Your task to perform on an android device: open a bookmark in the chrome app Image 0: 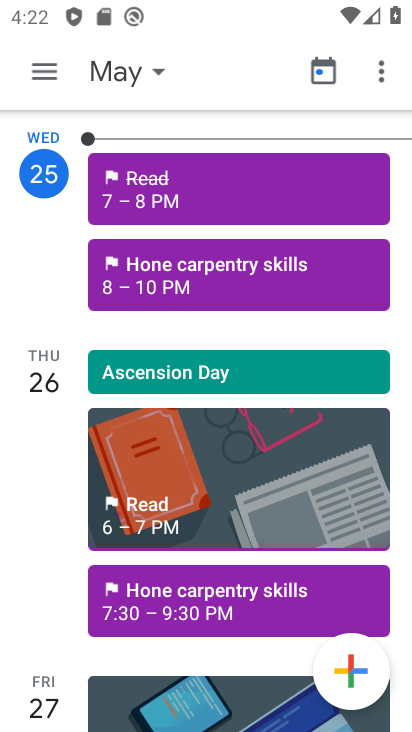
Step 0: press back button
Your task to perform on an android device: open a bookmark in the chrome app Image 1: 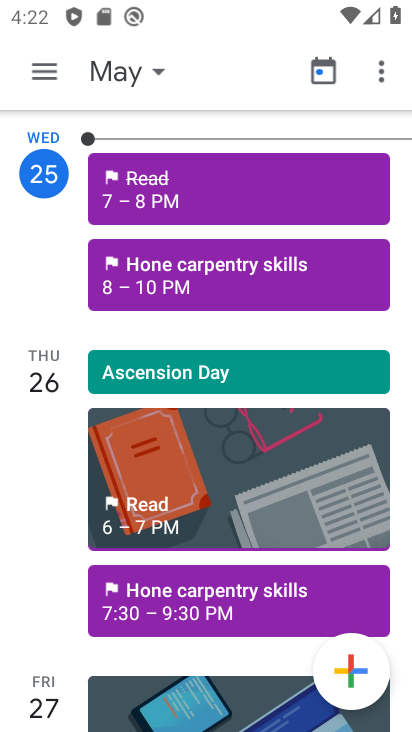
Step 1: press back button
Your task to perform on an android device: open a bookmark in the chrome app Image 2: 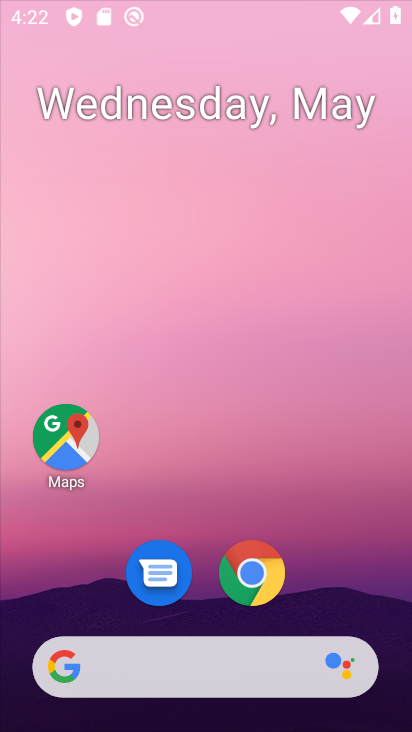
Step 2: press back button
Your task to perform on an android device: open a bookmark in the chrome app Image 3: 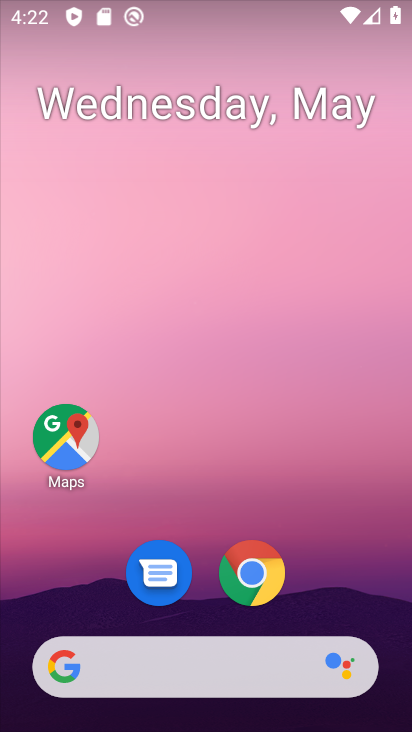
Step 3: drag from (241, 606) to (99, 11)
Your task to perform on an android device: open a bookmark in the chrome app Image 4: 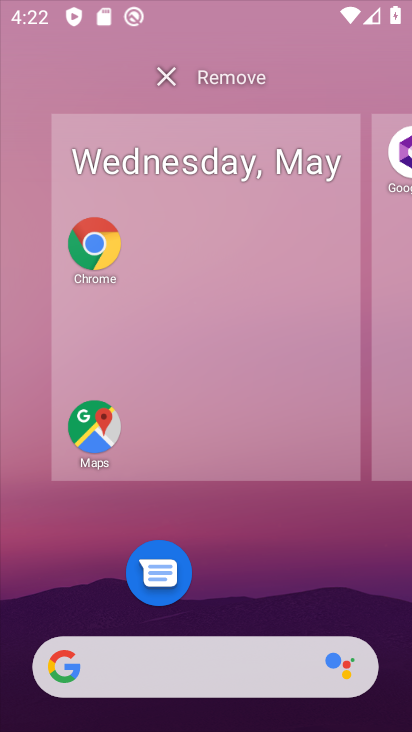
Step 4: drag from (85, 38) to (49, 4)
Your task to perform on an android device: open a bookmark in the chrome app Image 5: 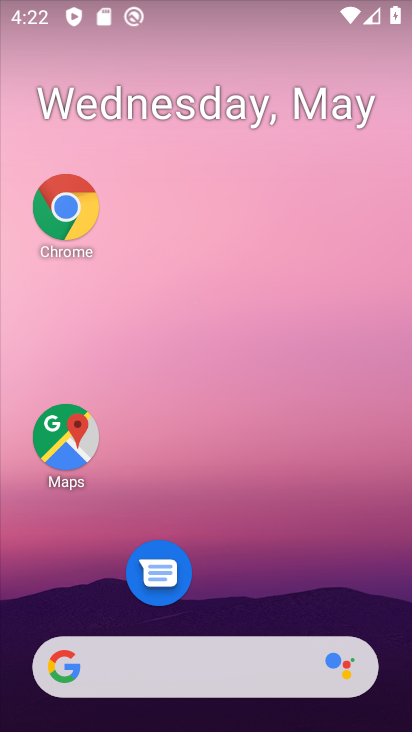
Step 5: drag from (153, 321) to (79, 0)
Your task to perform on an android device: open a bookmark in the chrome app Image 6: 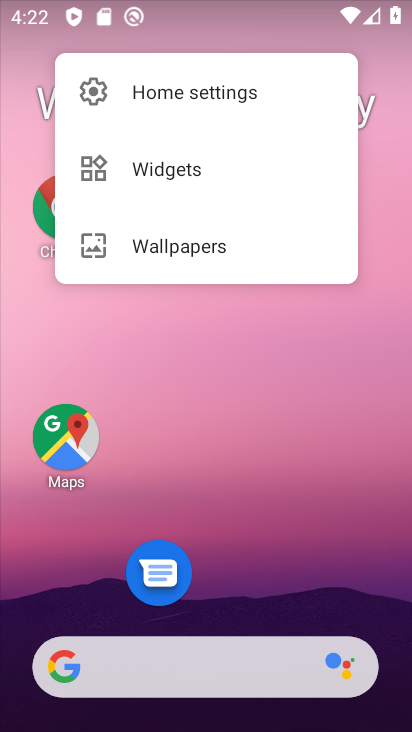
Step 6: drag from (194, 343) to (50, 51)
Your task to perform on an android device: open a bookmark in the chrome app Image 7: 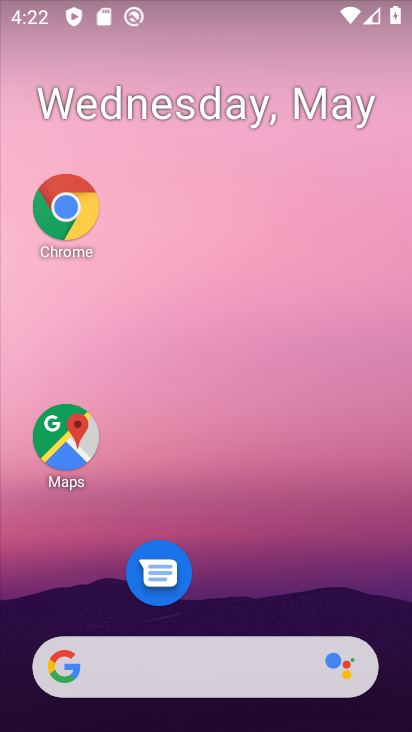
Step 7: drag from (61, 0) to (144, 167)
Your task to perform on an android device: open a bookmark in the chrome app Image 8: 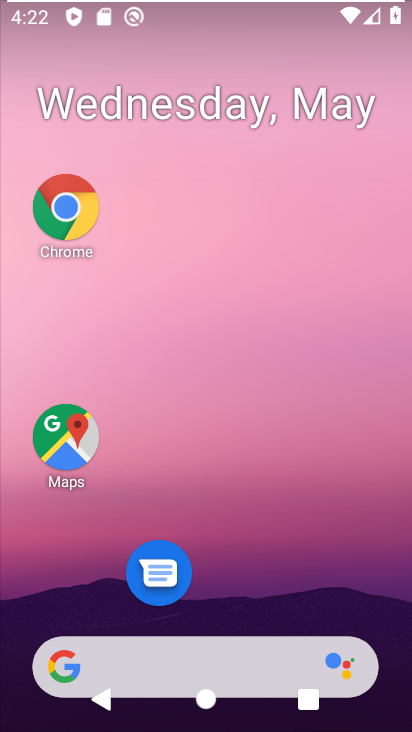
Step 8: click (122, 56)
Your task to perform on an android device: open a bookmark in the chrome app Image 9: 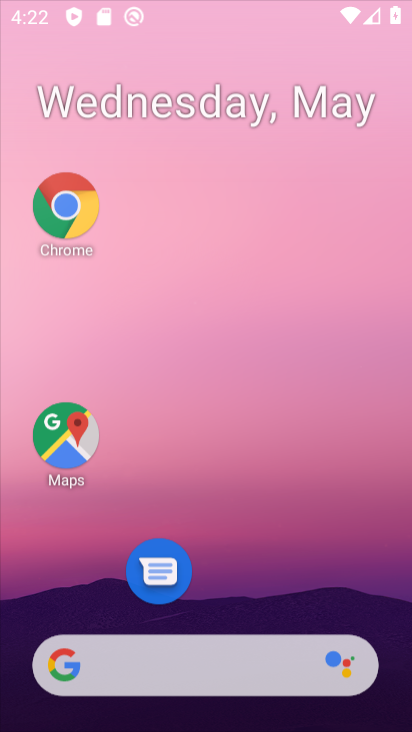
Step 9: drag from (135, 160) to (149, 75)
Your task to perform on an android device: open a bookmark in the chrome app Image 10: 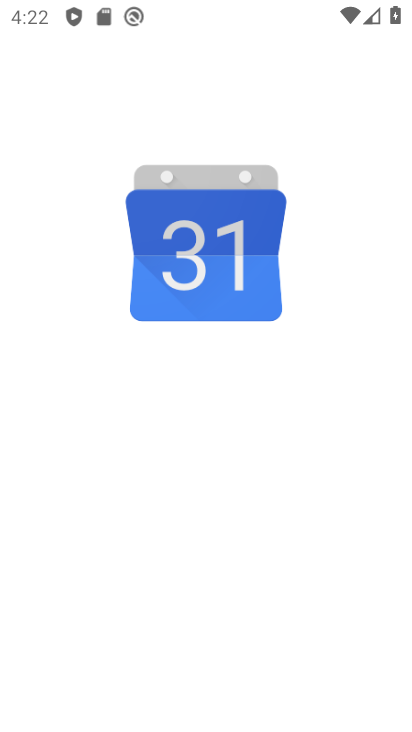
Step 10: drag from (322, 404) to (261, 74)
Your task to perform on an android device: open a bookmark in the chrome app Image 11: 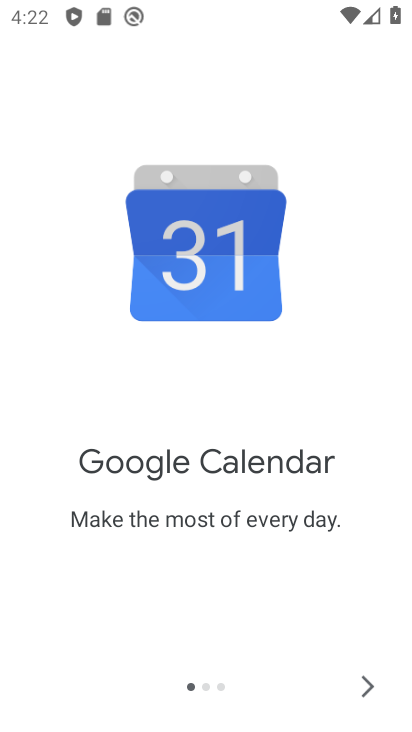
Step 11: click (371, 683)
Your task to perform on an android device: open a bookmark in the chrome app Image 12: 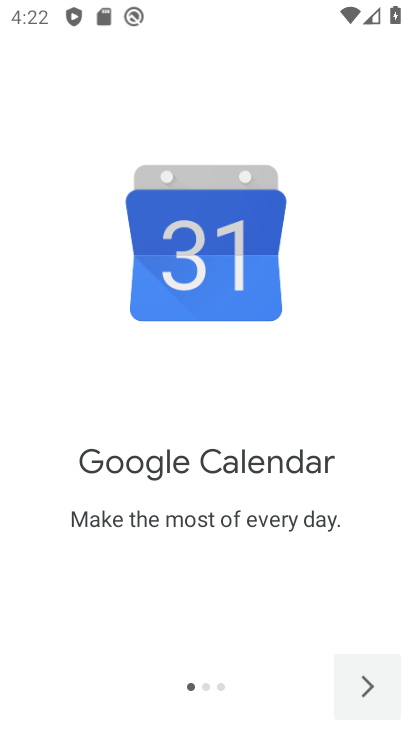
Step 12: click (371, 683)
Your task to perform on an android device: open a bookmark in the chrome app Image 13: 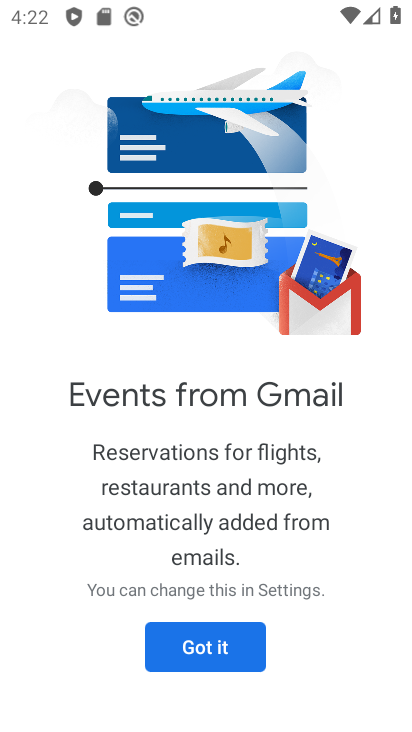
Step 13: click (213, 638)
Your task to perform on an android device: open a bookmark in the chrome app Image 14: 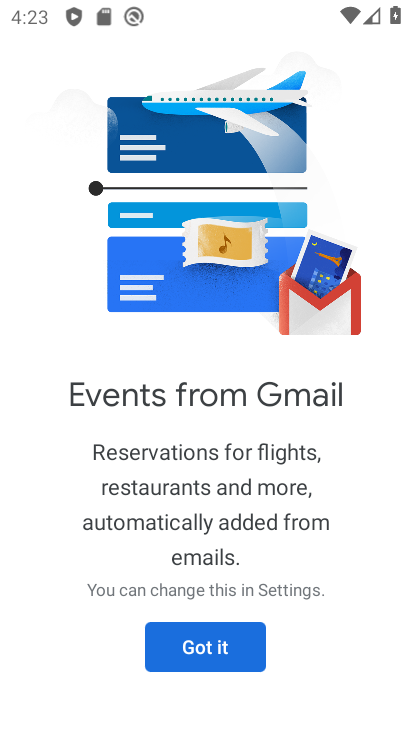
Step 14: click (213, 638)
Your task to perform on an android device: open a bookmark in the chrome app Image 15: 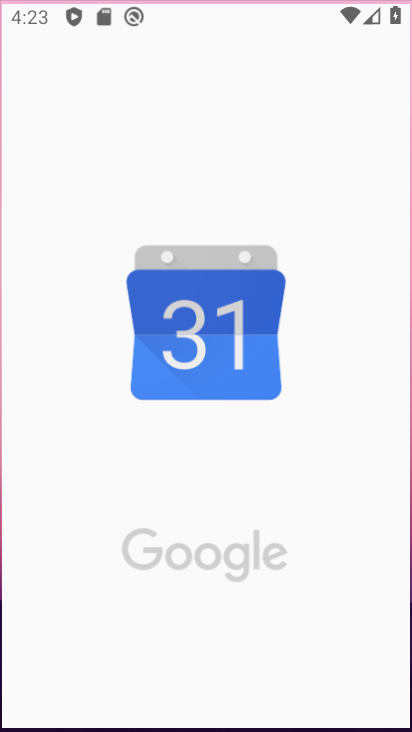
Step 15: click (219, 639)
Your task to perform on an android device: open a bookmark in the chrome app Image 16: 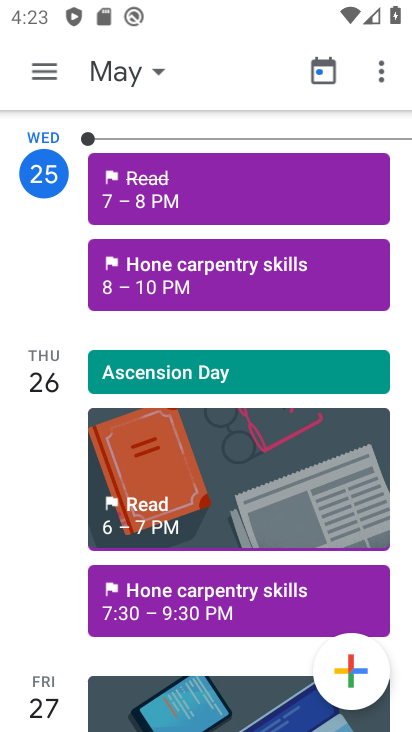
Step 16: drag from (244, 468) to (189, 32)
Your task to perform on an android device: open a bookmark in the chrome app Image 17: 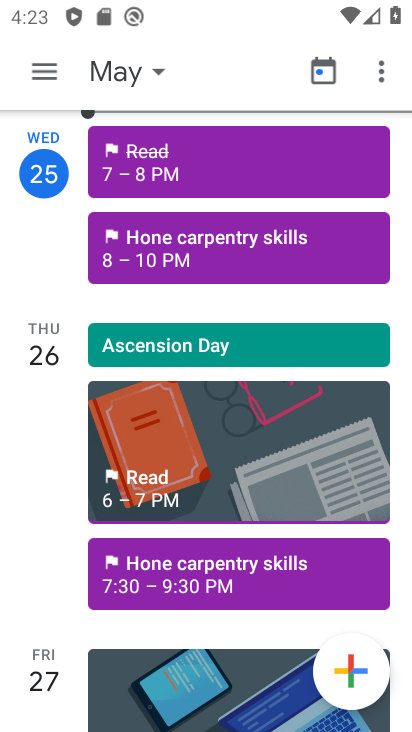
Step 17: press home button
Your task to perform on an android device: open a bookmark in the chrome app Image 18: 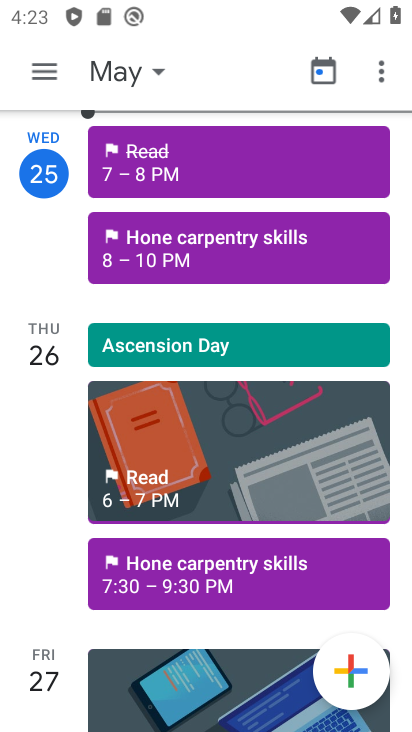
Step 18: press home button
Your task to perform on an android device: open a bookmark in the chrome app Image 19: 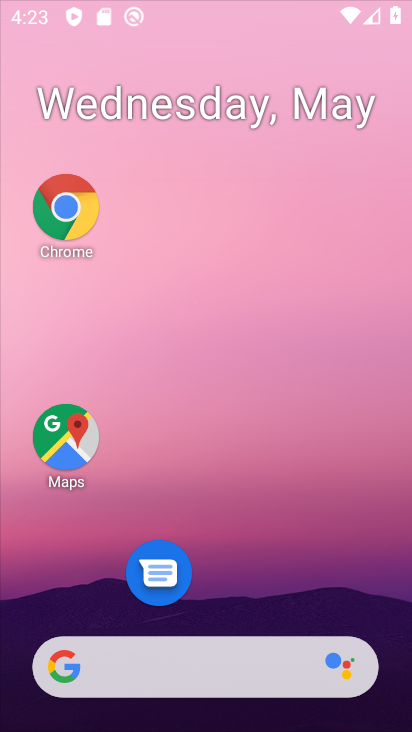
Step 19: press home button
Your task to perform on an android device: open a bookmark in the chrome app Image 20: 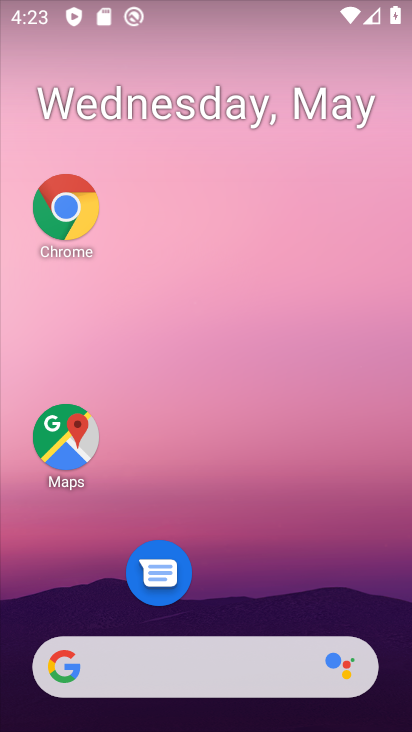
Step 20: drag from (272, 599) to (187, 1)
Your task to perform on an android device: open a bookmark in the chrome app Image 21: 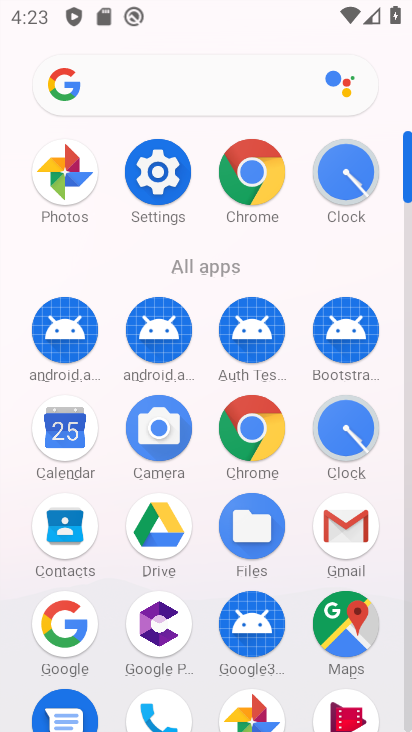
Step 21: click (262, 174)
Your task to perform on an android device: open a bookmark in the chrome app Image 22: 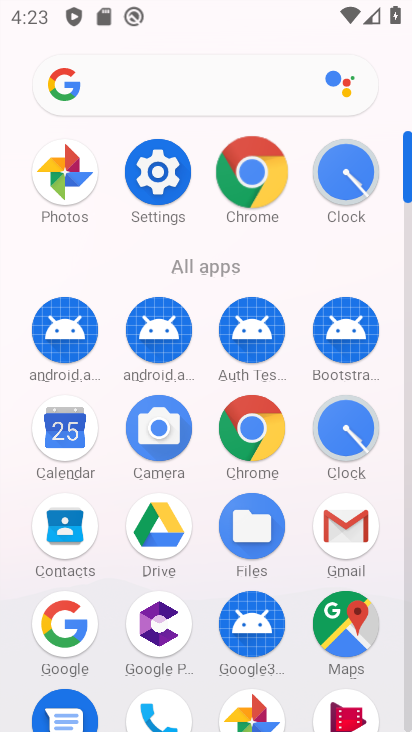
Step 22: click (263, 192)
Your task to perform on an android device: open a bookmark in the chrome app Image 23: 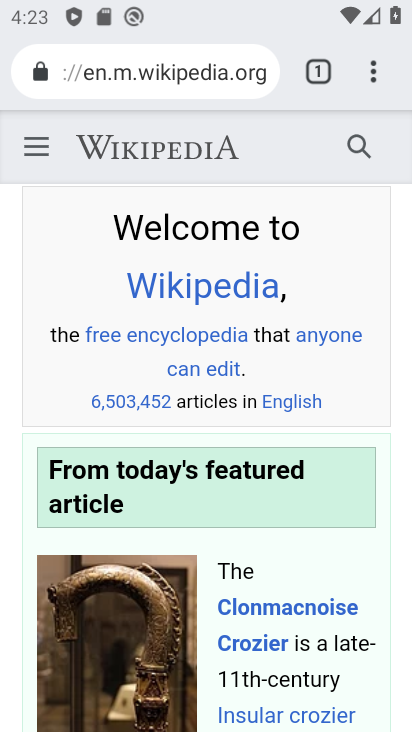
Step 23: click (380, 73)
Your task to perform on an android device: open a bookmark in the chrome app Image 24: 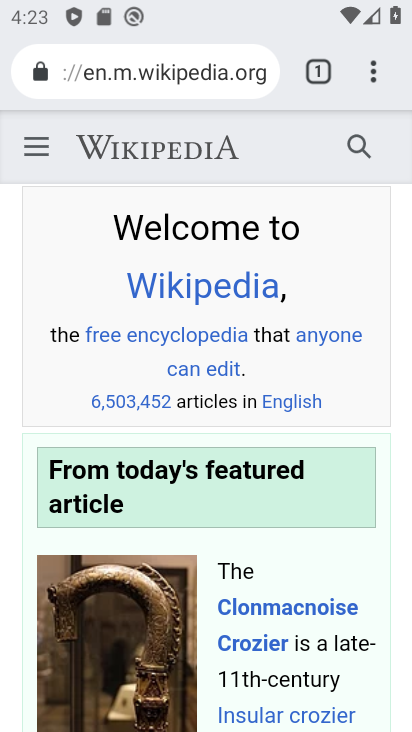
Step 24: drag from (372, 79) to (118, 271)
Your task to perform on an android device: open a bookmark in the chrome app Image 25: 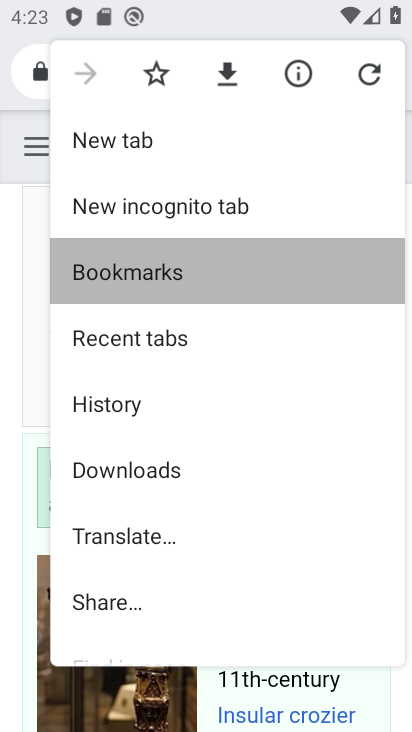
Step 25: click (118, 271)
Your task to perform on an android device: open a bookmark in the chrome app Image 26: 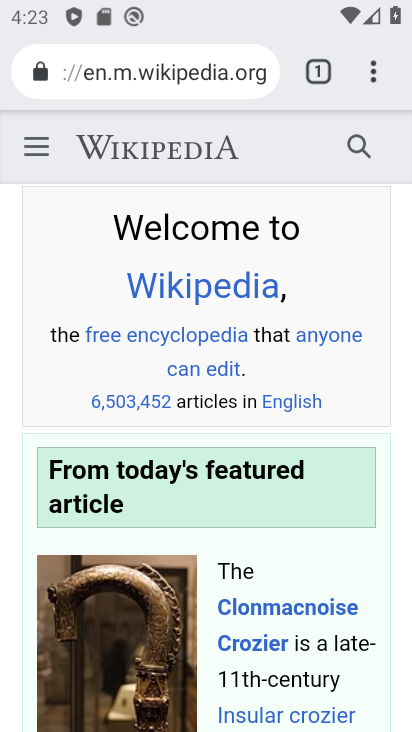
Step 26: click (124, 265)
Your task to perform on an android device: open a bookmark in the chrome app Image 27: 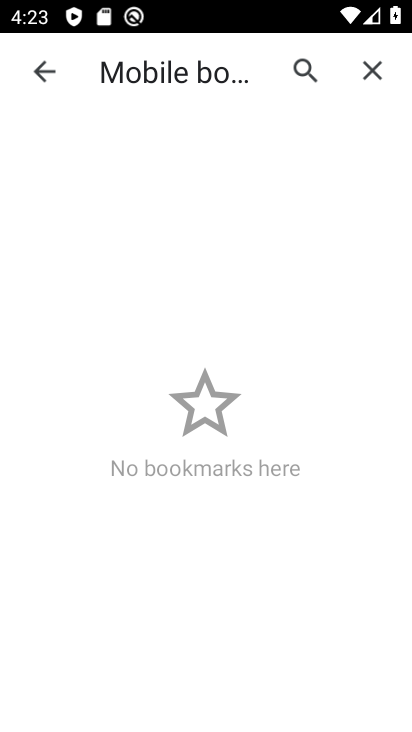
Step 27: task complete